Your task to perform on an android device: Go to settings Image 0: 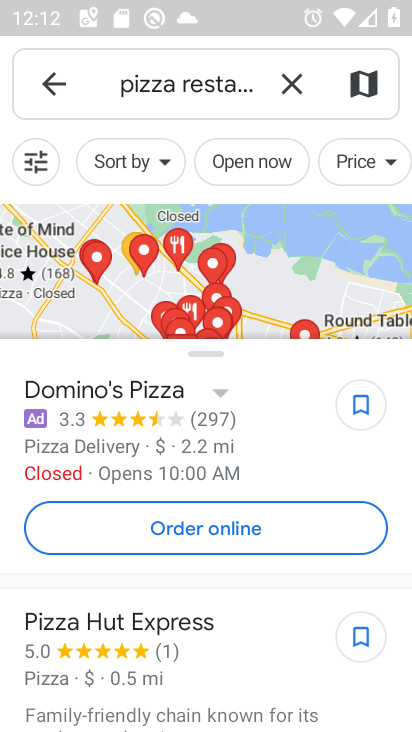
Step 0: press home button
Your task to perform on an android device: Go to settings Image 1: 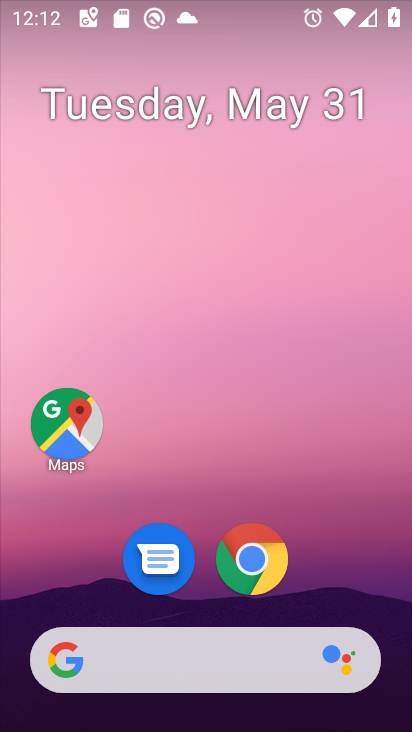
Step 1: drag from (359, 593) to (178, 138)
Your task to perform on an android device: Go to settings Image 2: 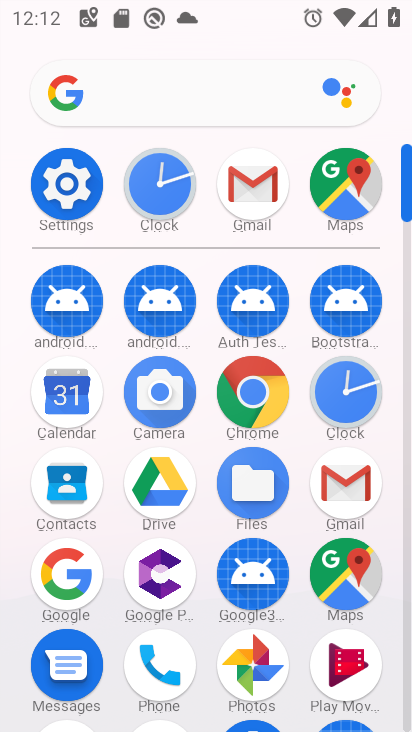
Step 2: click (61, 206)
Your task to perform on an android device: Go to settings Image 3: 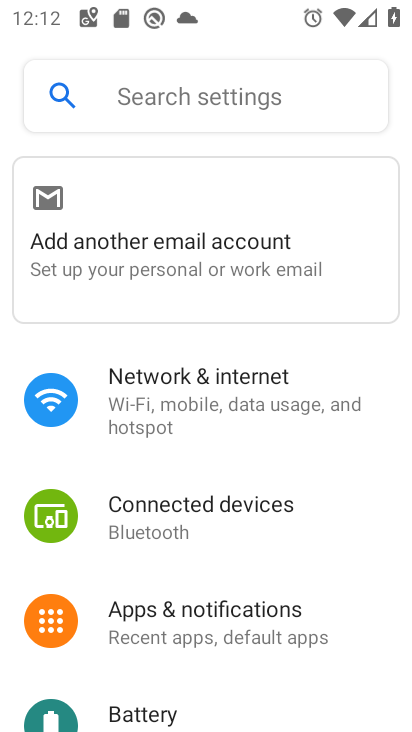
Step 3: task complete